Your task to perform on an android device: What's the weather? Image 0: 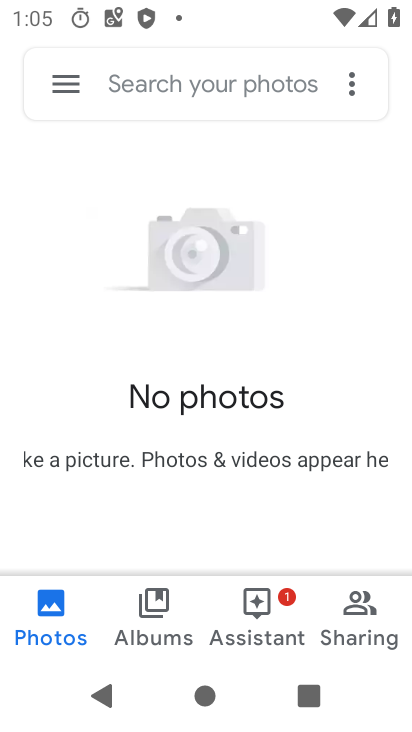
Step 0: press back button
Your task to perform on an android device: What's the weather? Image 1: 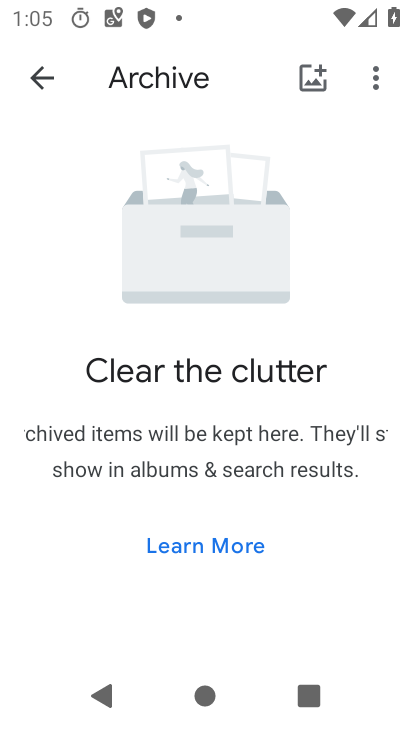
Step 1: press back button
Your task to perform on an android device: What's the weather? Image 2: 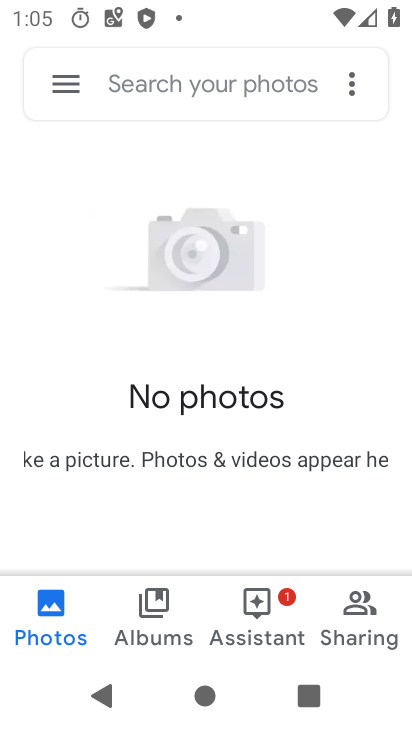
Step 2: press back button
Your task to perform on an android device: What's the weather? Image 3: 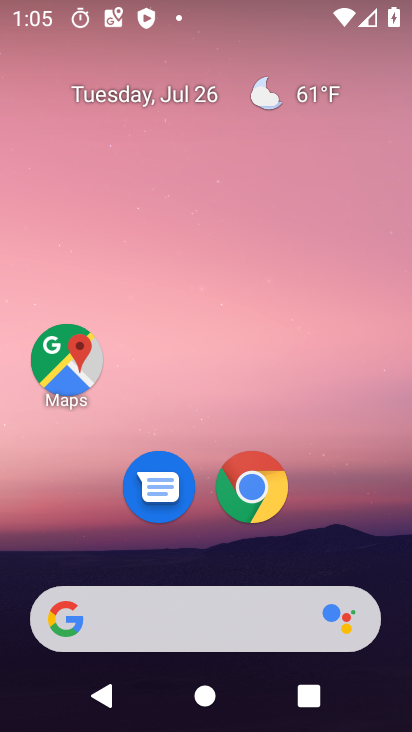
Step 3: click (149, 618)
Your task to perform on an android device: What's the weather? Image 4: 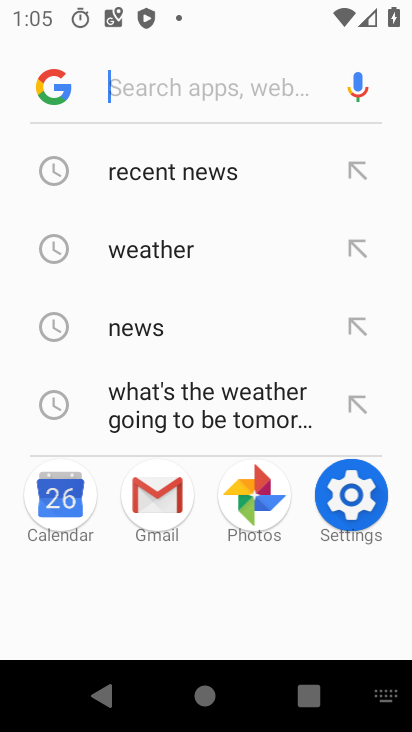
Step 4: click (139, 241)
Your task to perform on an android device: What's the weather? Image 5: 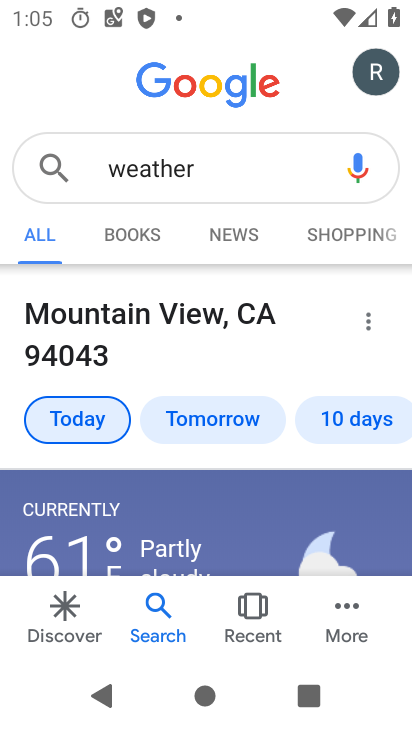
Step 5: task complete